Your task to perform on an android device: turn off improve location accuracy Image 0: 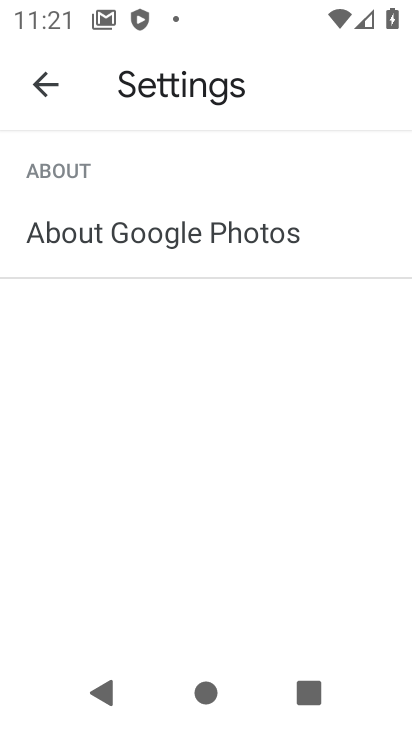
Step 0: press home button
Your task to perform on an android device: turn off improve location accuracy Image 1: 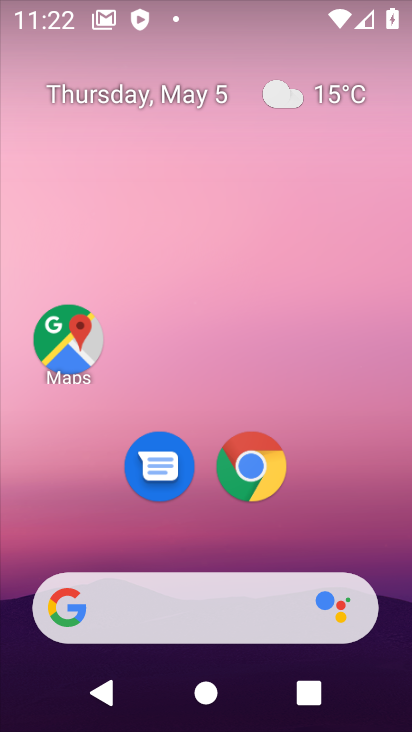
Step 1: drag from (210, 551) to (239, 71)
Your task to perform on an android device: turn off improve location accuracy Image 2: 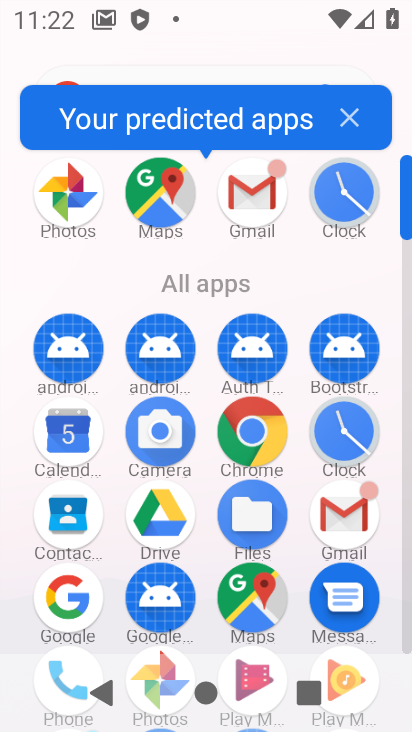
Step 2: drag from (301, 559) to (295, 208)
Your task to perform on an android device: turn off improve location accuracy Image 3: 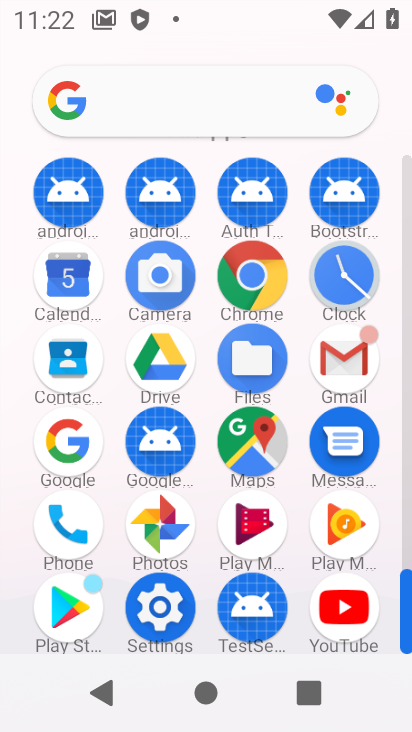
Step 3: click (160, 604)
Your task to perform on an android device: turn off improve location accuracy Image 4: 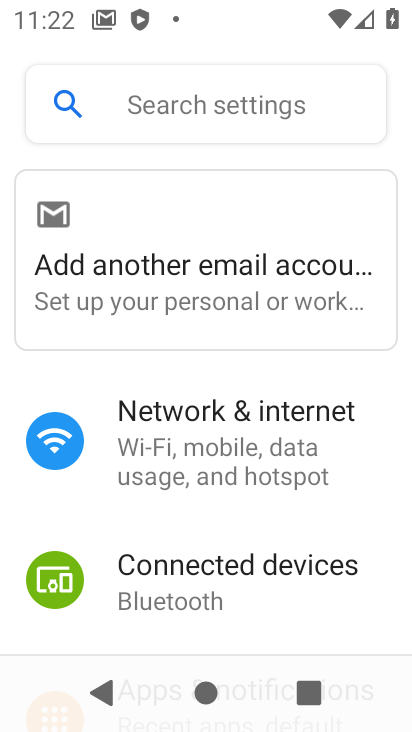
Step 4: drag from (262, 610) to (275, 229)
Your task to perform on an android device: turn off improve location accuracy Image 5: 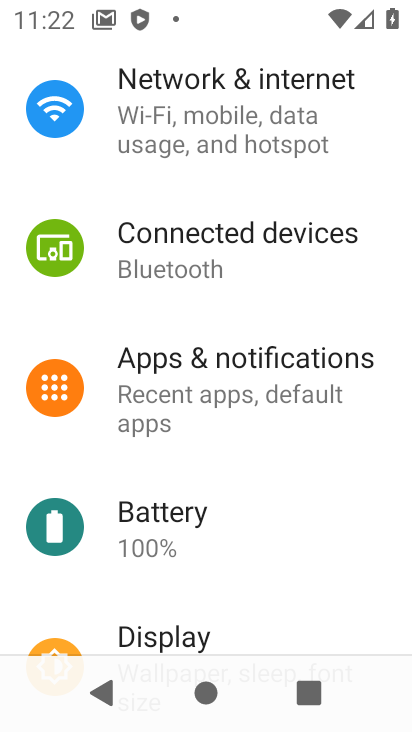
Step 5: drag from (245, 612) to (259, 195)
Your task to perform on an android device: turn off improve location accuracy Image 6: 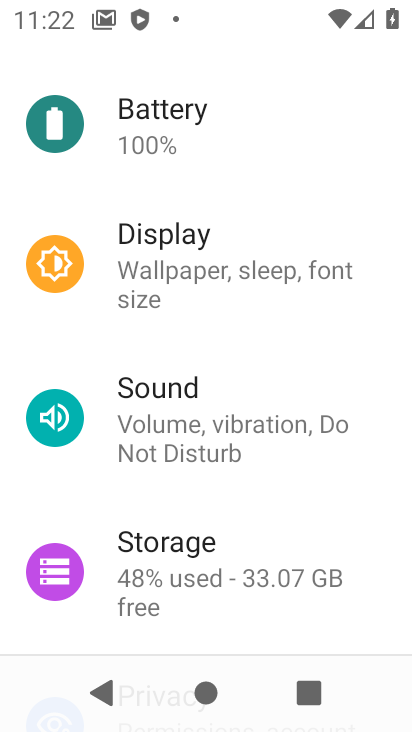
Step 6: drag from (256, 632) to (268, 255)
Your task to perform on an android device: turn off improve location accuracy Image 7: 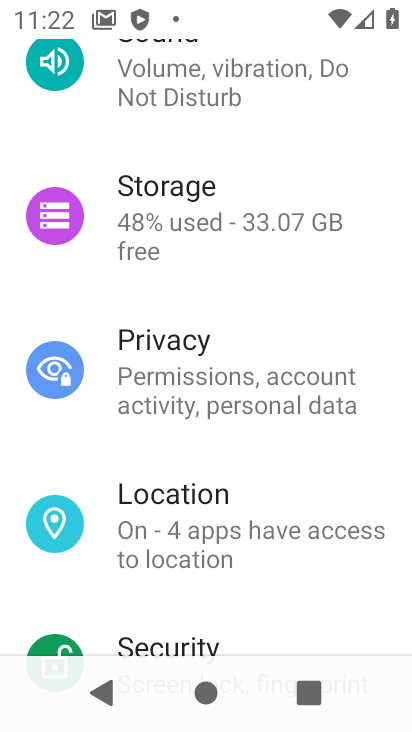
Step 7: click (207, 544)
Your task to perform on an android device: turn off improve location accuracy Image 8: 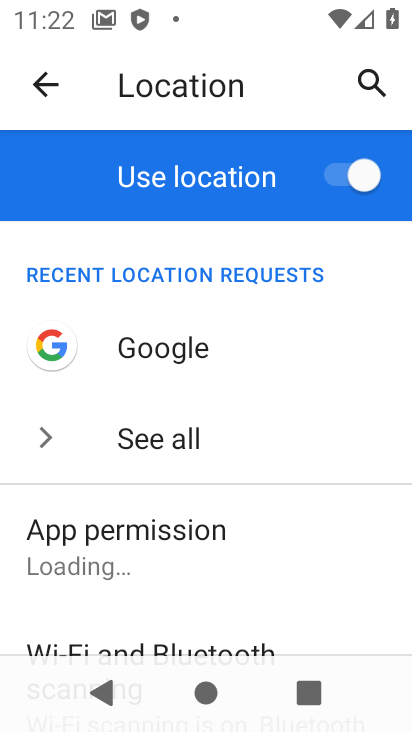
Step 8: drag from (200, 590) to (248, 271)
Your task to perform on an android device: turn off improve location accuracy Image 9: 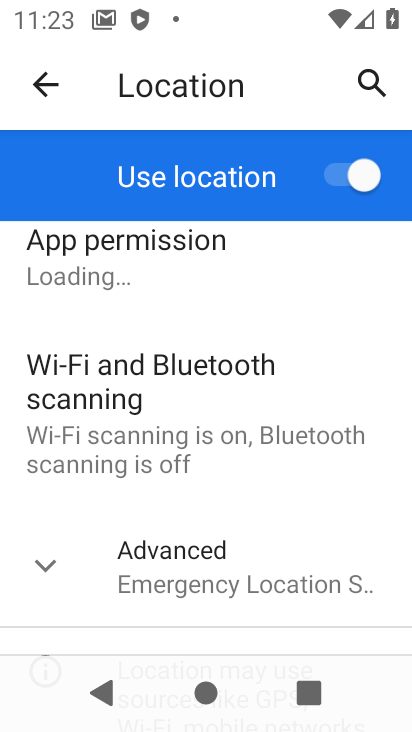
Step 9: click (42, 569)
Your task to perform on an android device: turn off improve location accuracy Image 10: 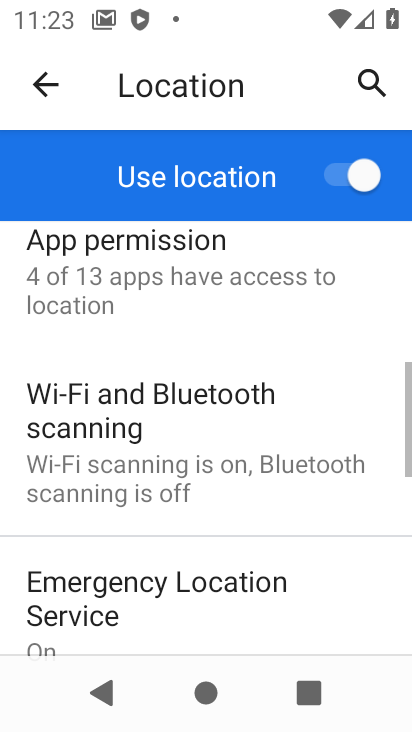
Step 10: drag from (203, 609) to (229, 305)
Your task to perform on an android device: turn off improve location accuracy Image 11: 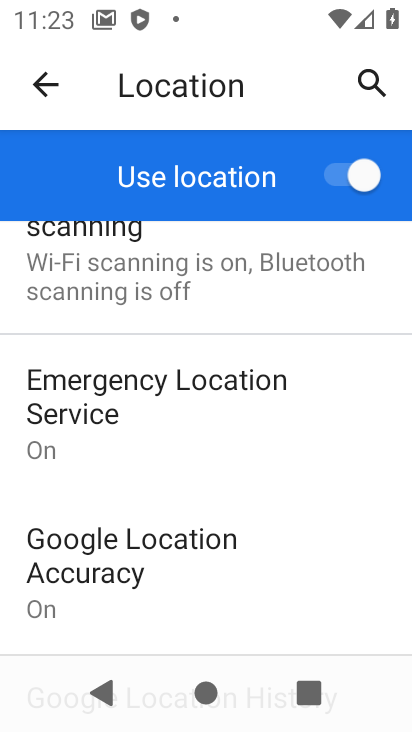
Step 11: click (160, 556)
Your task to perform on an android device: turn off improve location accuracy Image 12: 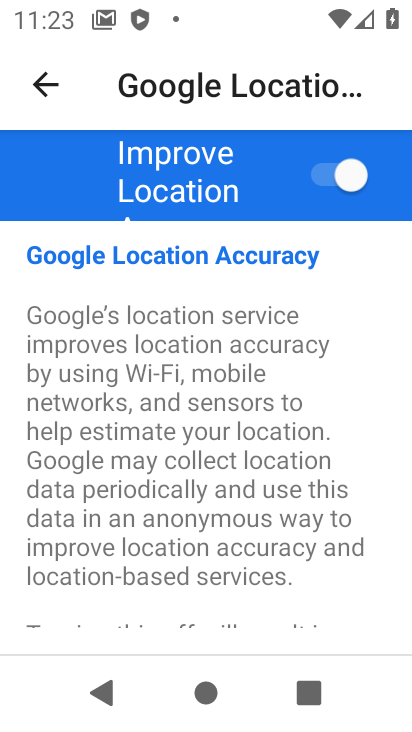
Step 12: click (325, 184)
Your task to perform on an android device: turn off improve location accuracy Image 13: 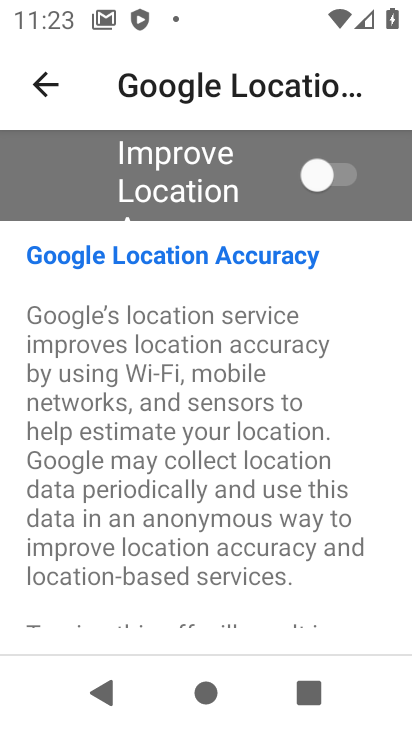
Step 13: task complete